Your task to perform on an android device: turn on priority inbox in the gmail app Image 0: 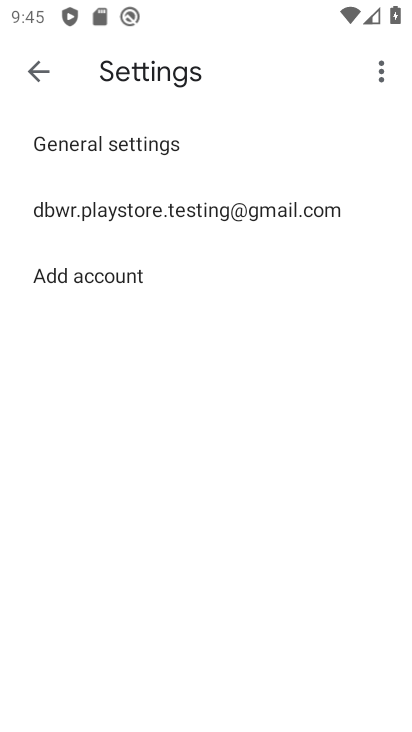
Step 0: press home button
Your task to perform on an android device: turn on priority inbox in the gmail app Image 1: 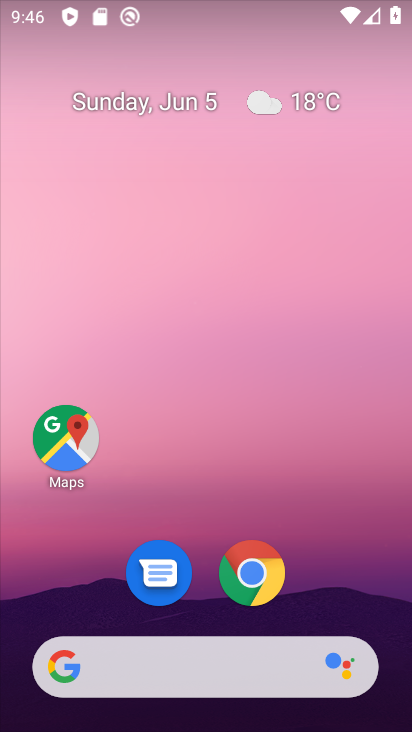
Step 1: drag from (188, 556) to (194, 325)
Your task to perform on an android device: turn on priority inbox in the gmail app Image 2: 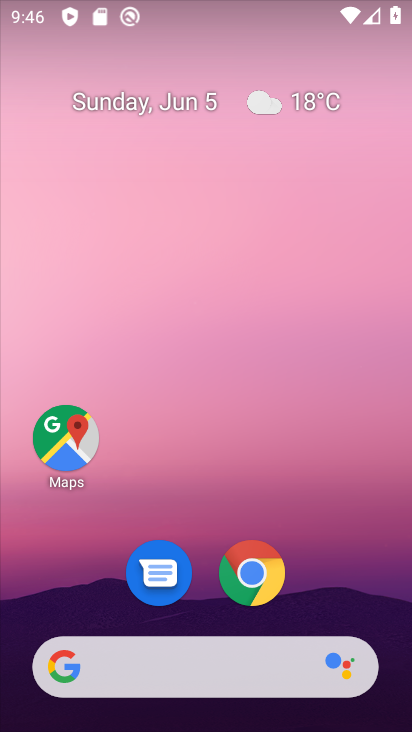
Step 2: drag from (204, 629) to (207, 190)
Your task to perform on an android device: turn on priority inbox in the gmail app Image 3: 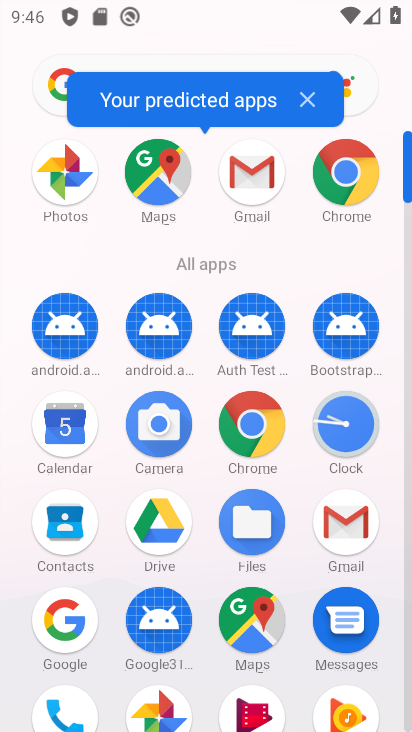
Step 3: click (254, 185)
Your task to perform on an android device: turn on priority inbox in the gmail app Image 4: 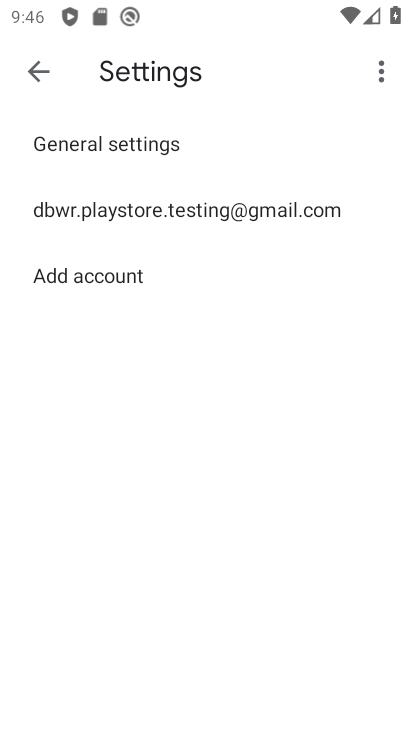
Step 4: click (311, 96)
Your task to perform on an android device: turn on priority inbox in the gmail app Image 5: 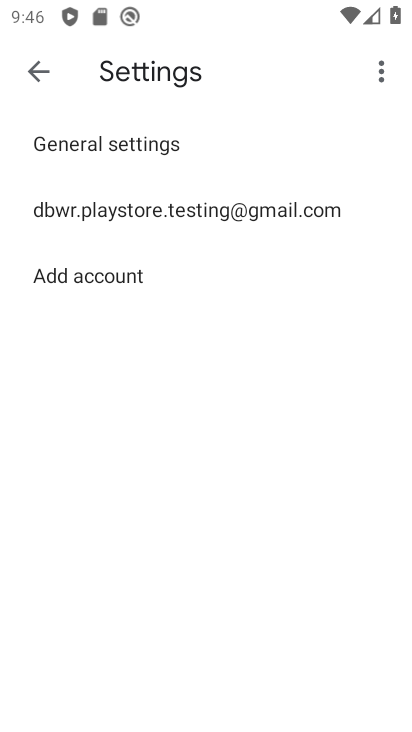
Step 5: click (143, 206)
Your task to perform on an android device: turn on priority inbox in the gmail app Image 6: 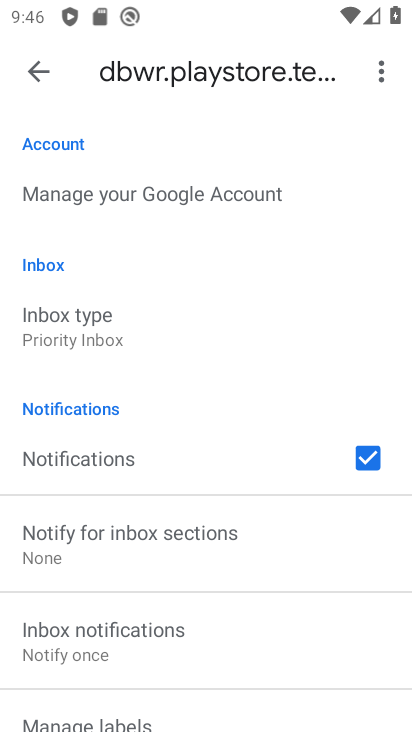
Step 6: task complete